Your task to perform on an android device: make emails show in primary in the gmail app Image 0: 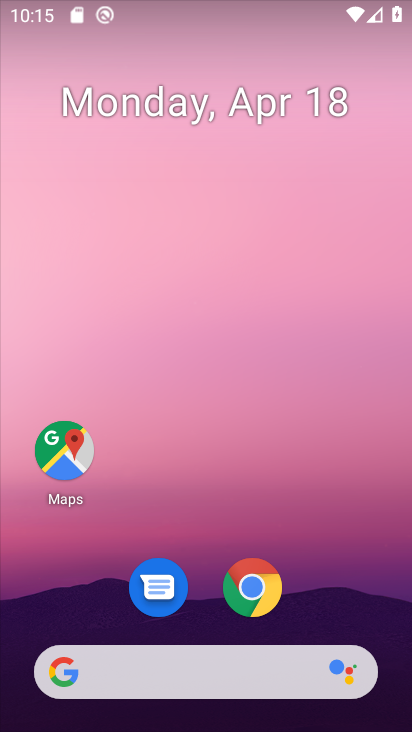
Step 0: drag from (376, 593) to (315, 121)
Your task to perform on an android device: make emails show in primary in the gmail app Image 1: 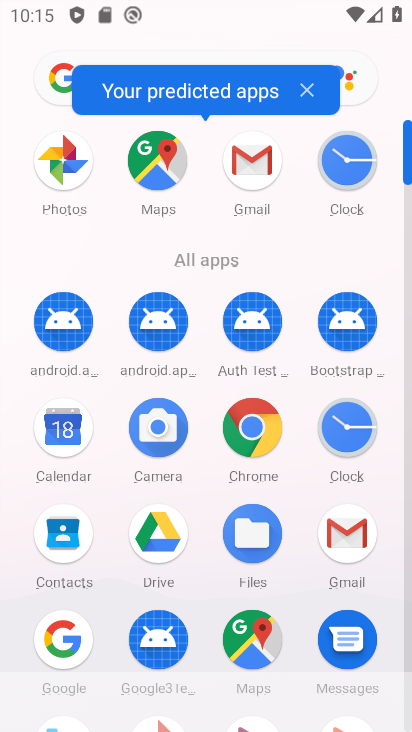
Step 1: click (359, 553)
Your task to perform on an android device: make emails show in primary in the gmail app Image 2: 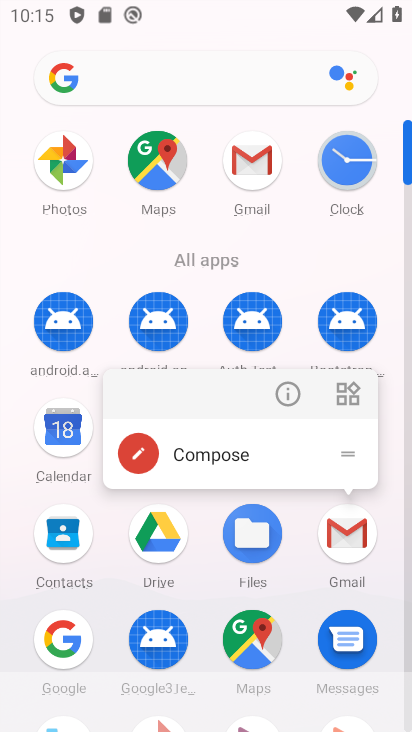
Step 2: click (347, 547)
Your task to perform on an android device: make emails show in primary in the gmail app Image 3: 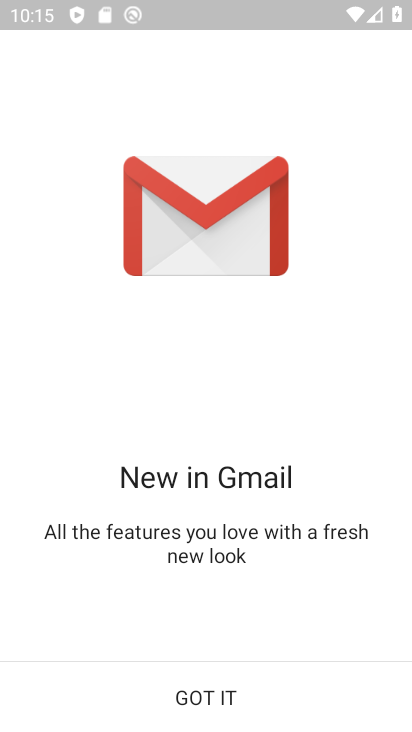
Step 3: click (213, 700)
Your task to perform on an android device: make emails show in primary in the gmail app Image 4: 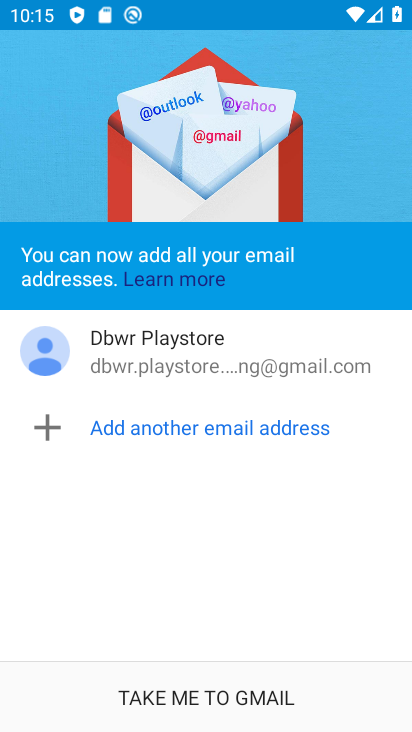
Step 4: click (263, 697)
Your task to perform on an android device: make emails show in primary in the gmail app Image 5: 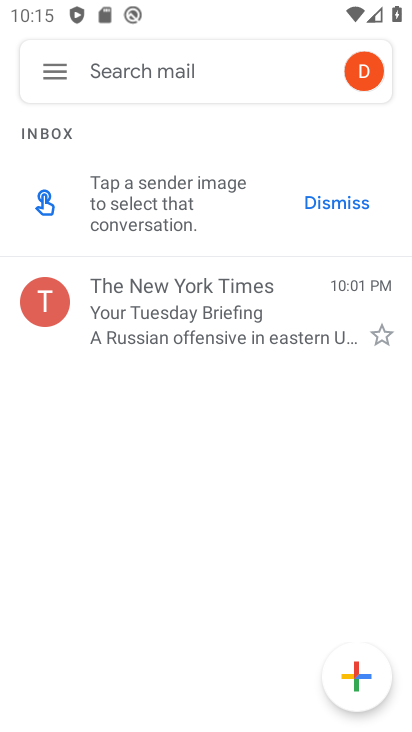
Step 5: click (41, 70)
Your task to perform on an android device: make emails show in primary in the gmail app Image 6: 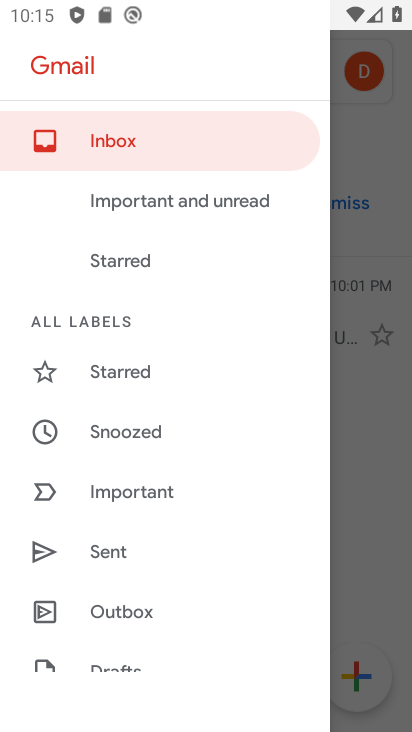
Step 6: drag from (209, 621) to (222, 262)
Your task to perform on an android device: make emails show in primary in the gmail app Image 7: 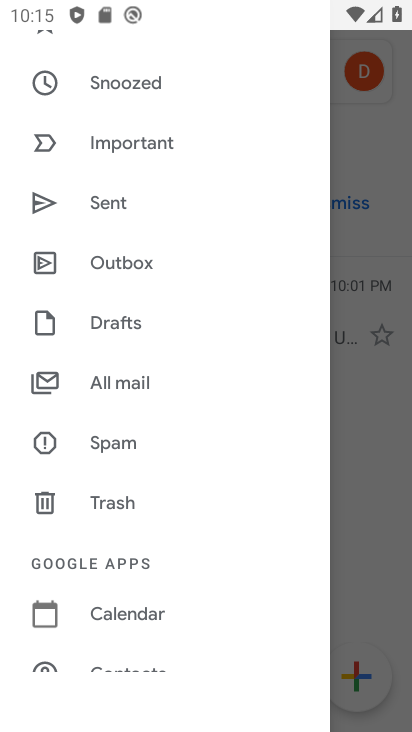
Step 7: drag from (197, 572) to (211, 170)
Your task to perform on an android device: make emails show in primary in the gmail app Image 8: 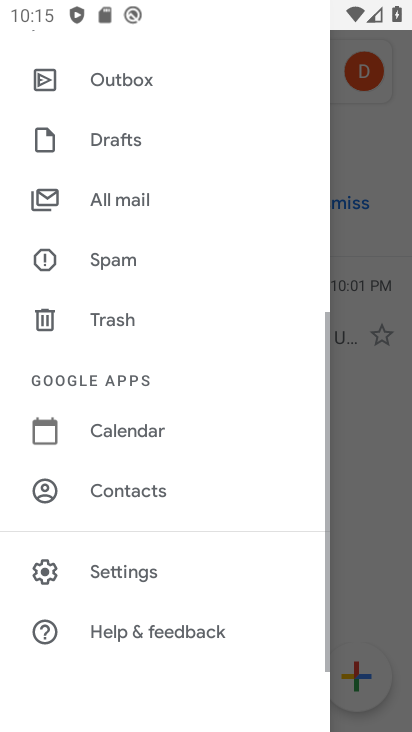
Step 8: click (144, 567)
Your task to perform on an android device: make emails show in primary in the gmail app Image 9: 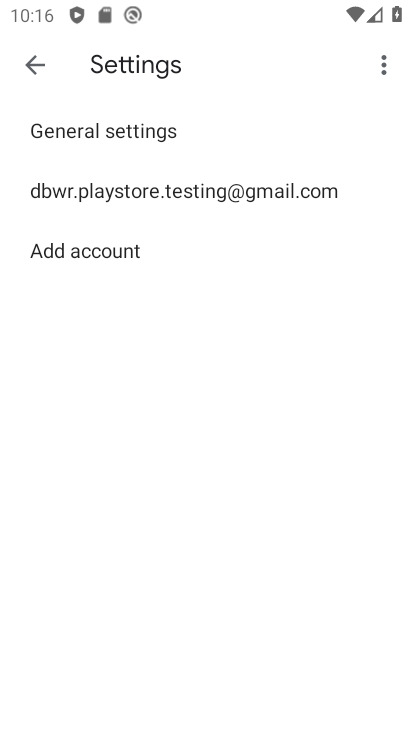
Step 9: click (234, 182)
Your task to perform on an android device: make emails show in primary in the gmail app Image 10: 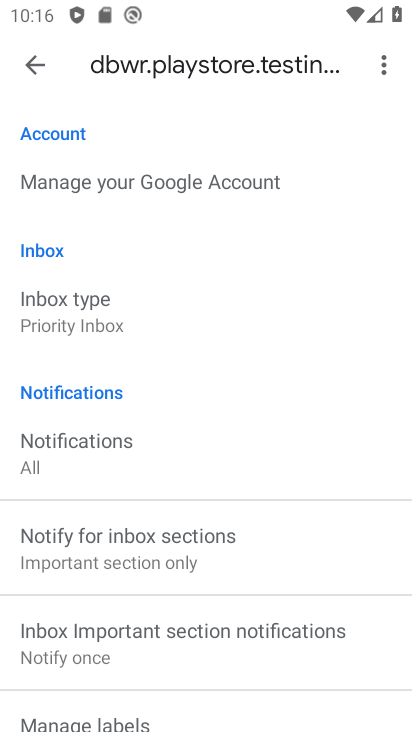
Step 10: click (104, 312)
Your task to perform on an android device: make emails show in primary in the gmail app Image 11: 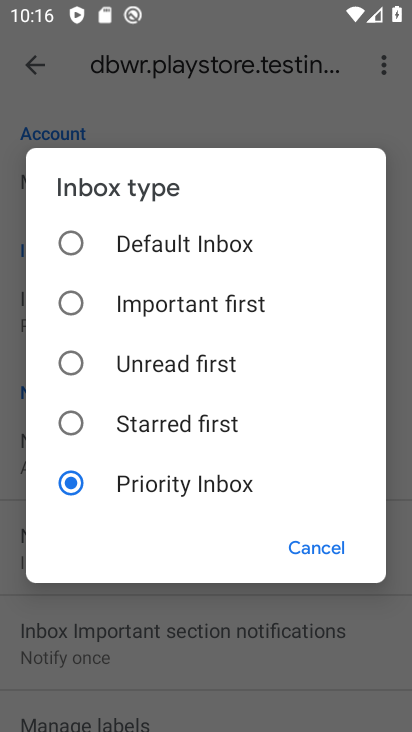
Step 11: click (121, 243)
Your task to perform on an android device: make emails show in primary in the gmail app Image 12: 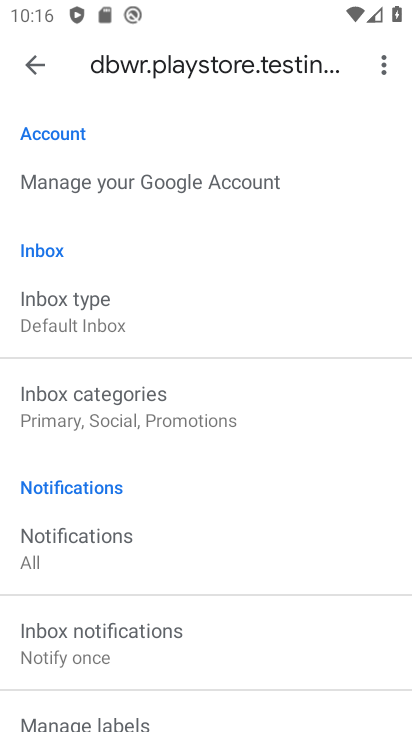
Step 12: task complete